Your task to perform on an android device: turn vacation reply on in the gmail app Image 0: 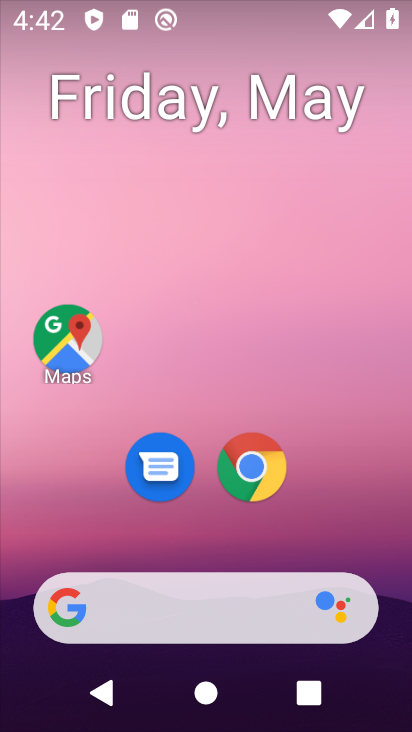
Step 0: drag from (268, 689) to (254, 393)
Your task to perform on an android device: turn vacation reply on in the gmail app Image 1: 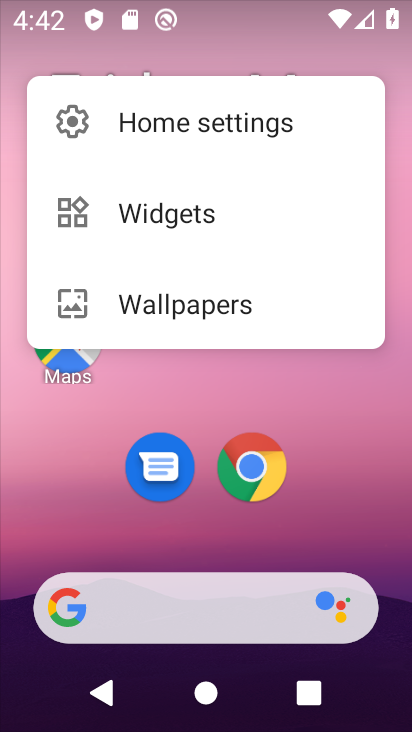
Step 1: drag from (316, 524) to (310, 88)
Your task to perform on an android device: turn vacation reply on in the gmail app Image 2: 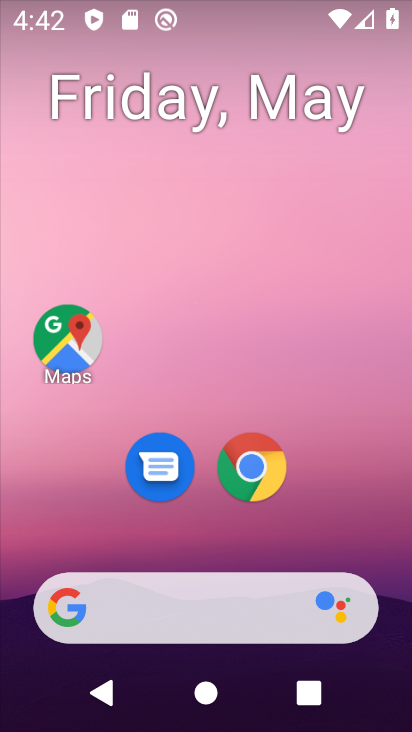
Step 2: drag from (247, 527) to (266, 59)
Your task to perform on an android device: turn vacation reply on in the gmail app Image 3: 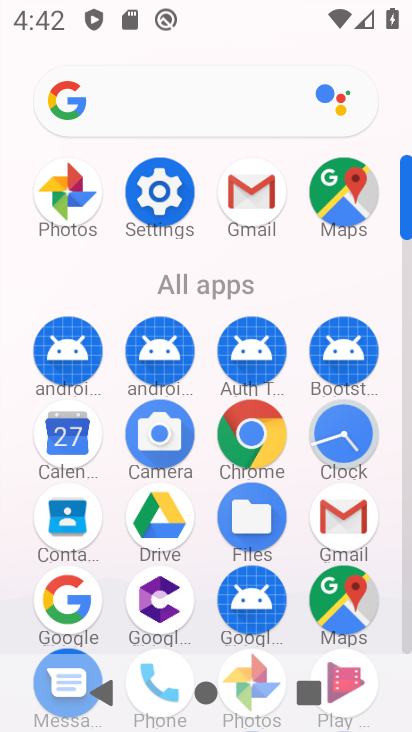
Step 3: click (257, 198)
Your task to perform on an android device: turn vacation reply on in the gmail app Image 4: 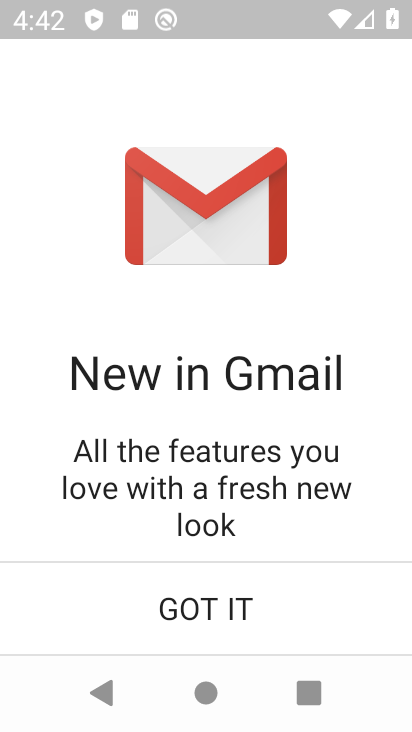
Step 4: click (206, 606)
Your task to perform on an android device: turn vacation reply on in the gmail app Image 5: 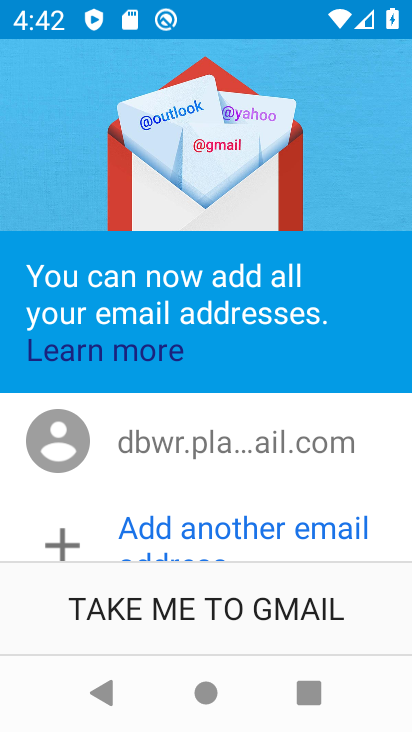
Step 5: click (226, 601)
Your task to perform on an android device: turn vacation reply on in the gmail app Image 6: 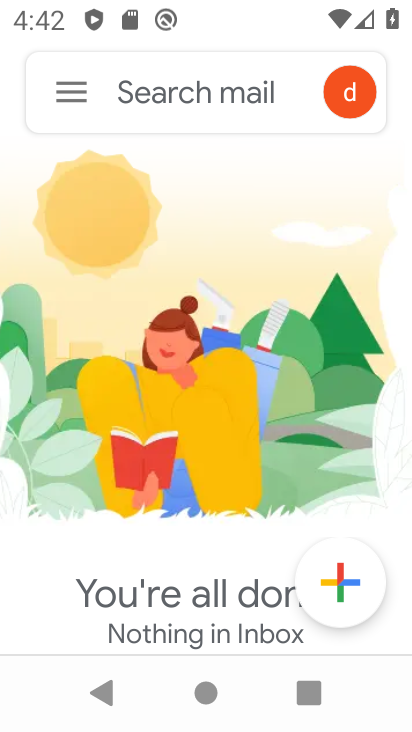
Step 6: click (71, 76)
Your task to perform on an android device: turn vacation reply on in the gmail app Image 7: 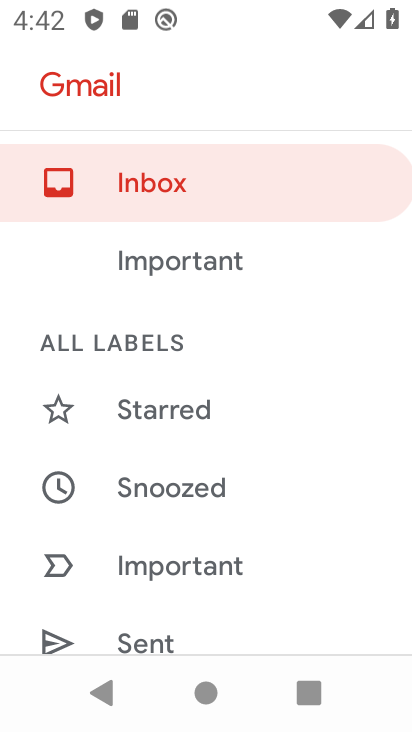
Step 7: drag from (178, 576) to (185, 146)
Your task to perform on an android device: turn vacation reply on in the gmail app Image 8: 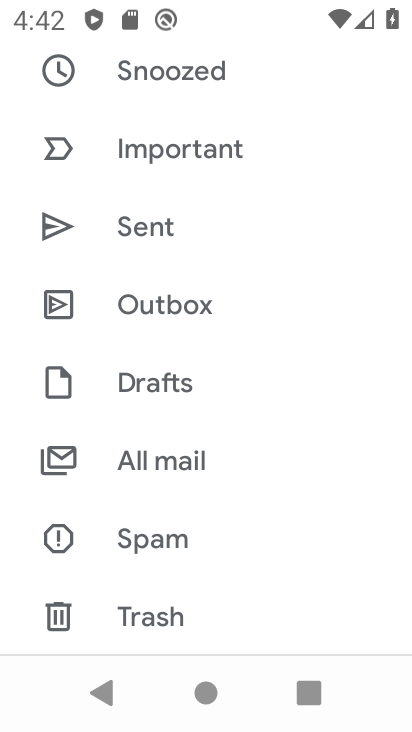
Step 8: drag from (182, 567) to (194, 358)
Your task to perform on an android device: turn vacation reply on in the gmail app Image 9: 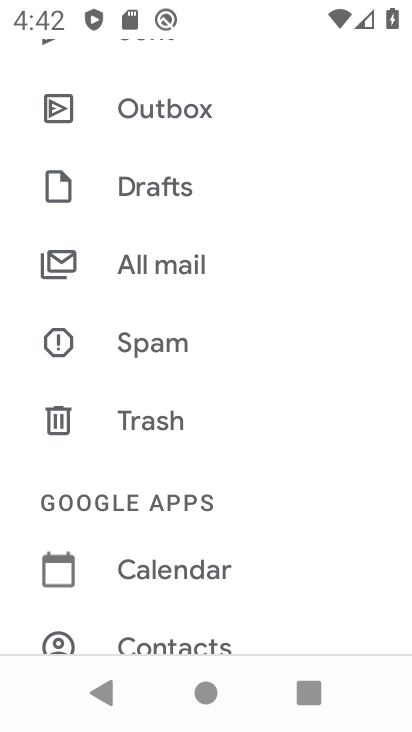
Step 9: drag from (224, 594) to (232, 250)
Your task to perform on an android device: turn vacation reply on in the gmail app Image 10: 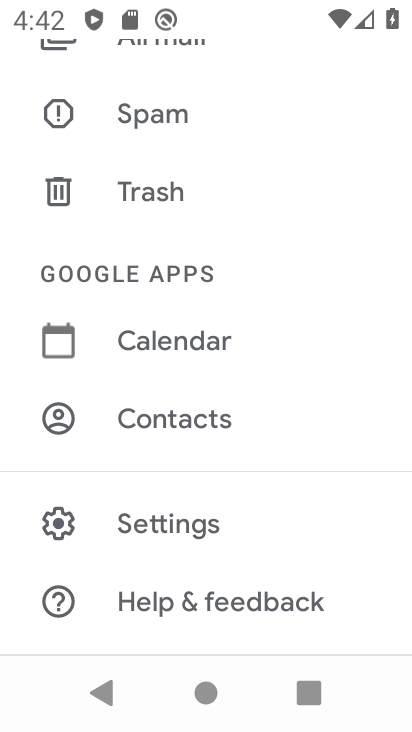
Step 10: click (165, 525)
Your task to perform on an android device: turn vacation reply on in the gmail app Image 11: 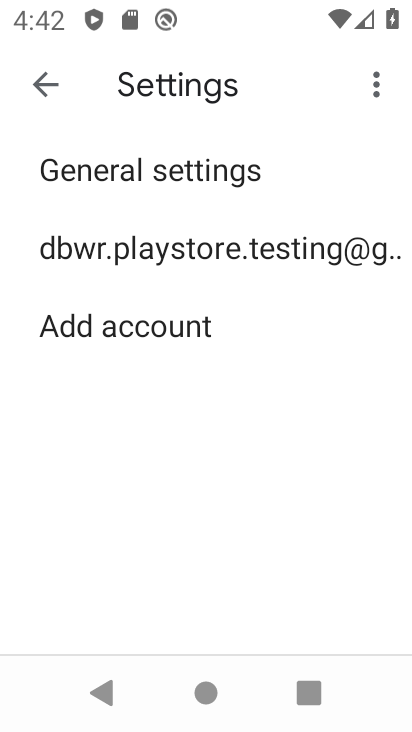
Step 11: click (208, 237)
Your task to perform on an android device: turn vacation reply on in the gmail app Image 12: 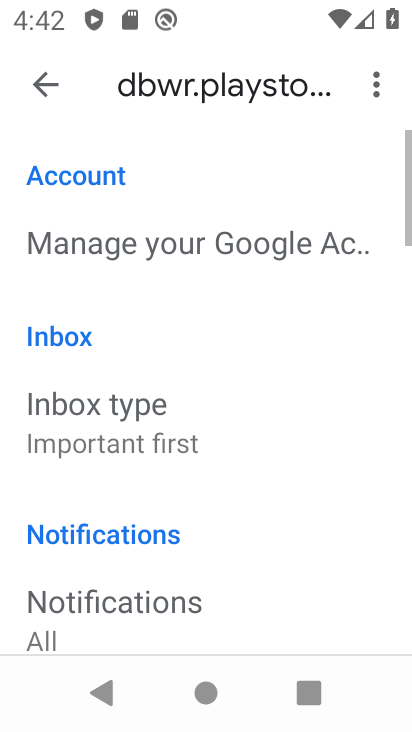
Step 12: drag from (294, 600) to (271, 303)
Your task to perform on an android device: turn vacation reply on in the gmail app Image 13: 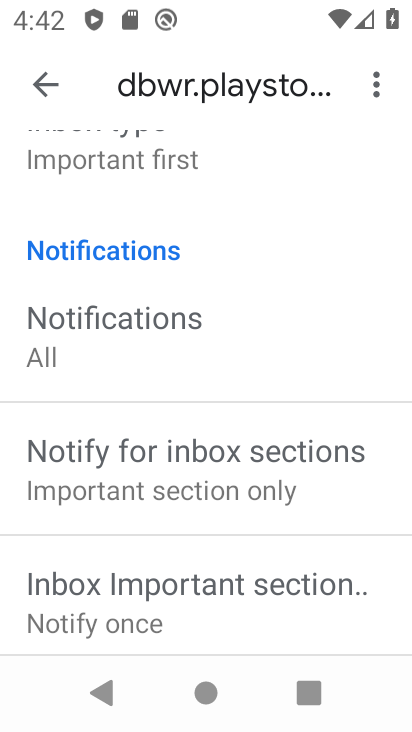
Step 13: drag from (254, 528) to (261, 341)
Your task to perform on an android device: turn vacation reply on in the gmail app Image 14: 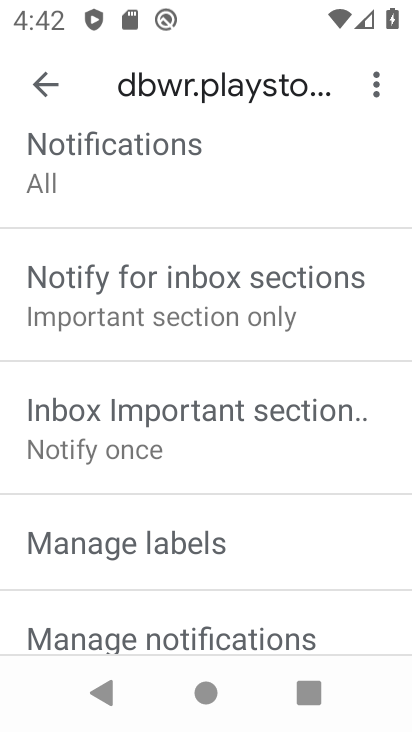
Step 14: drag from (268, 583) to (268, 353)
Your task to perform on an android device: turn vacation reply on in the gmail app Image 15: 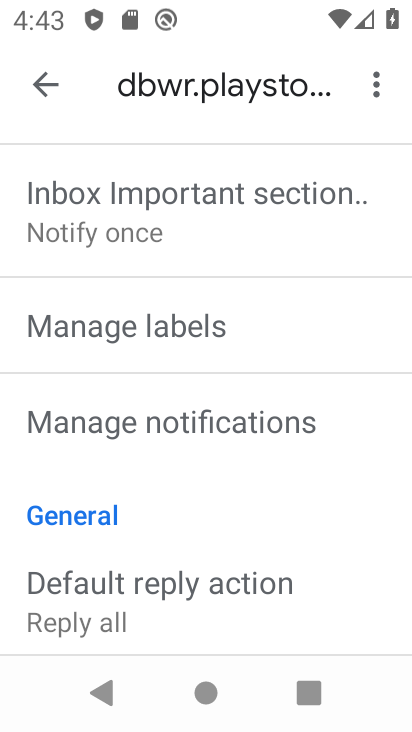
Step 15: drag from (274, 611) to (279, 137)
Your task to perform on an android device: turn vacation reply on in the gmail app Image 16: 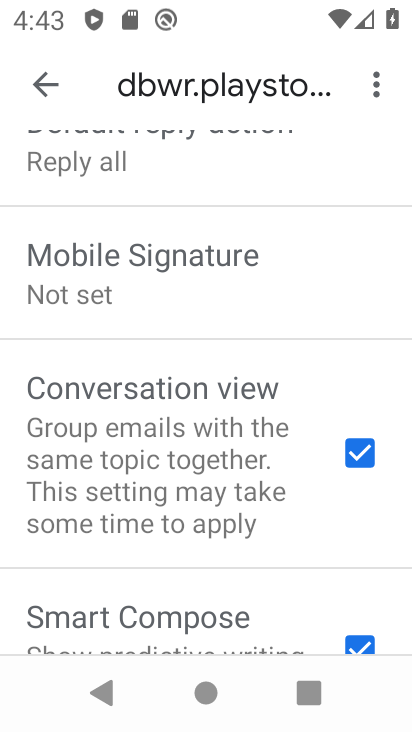
Step 16: drag from (293, 562) to (320, 219)
Your task to perform on an android device: turn vacation reply on in the gmail app Image 17: 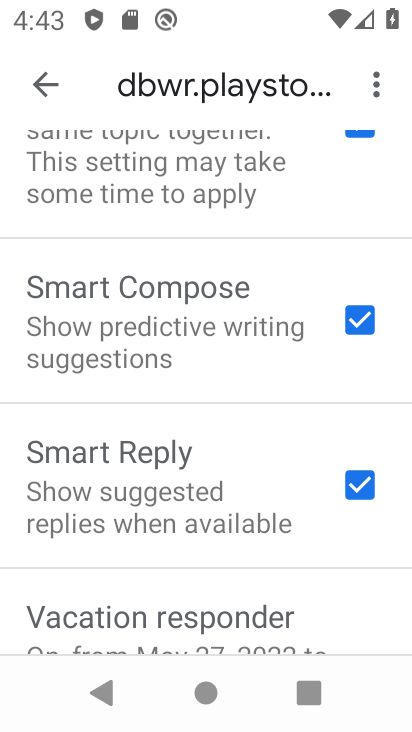
Step 17: drag from (222, 580) to (248, 317)
Your task to perform on an android device: turn vacation reply on in the gmail app Image 18: 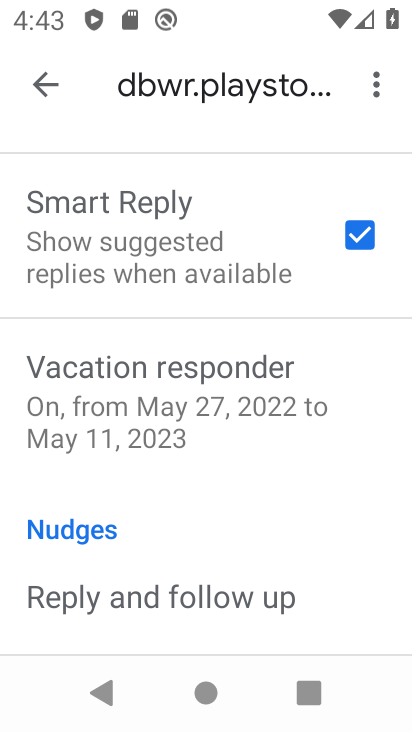
Step 18: click (256, 368)
Your task to perform on an android device: turn vacation reply on in the gmail app Image 19: 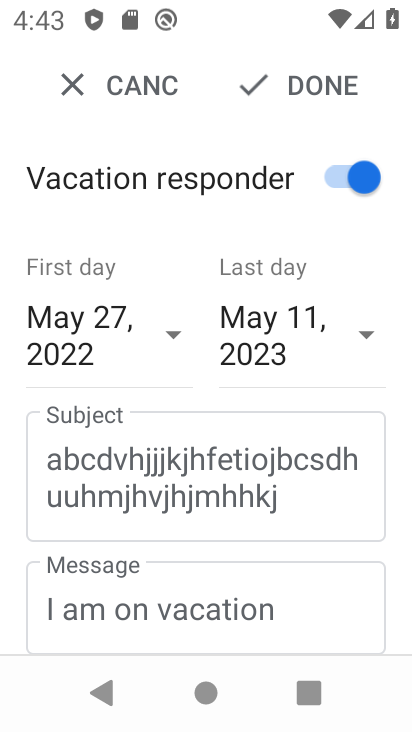
Step 19: click (310, 84)
Your task to perform on an android device: turn vacation reply on in the gmail app Image 20: 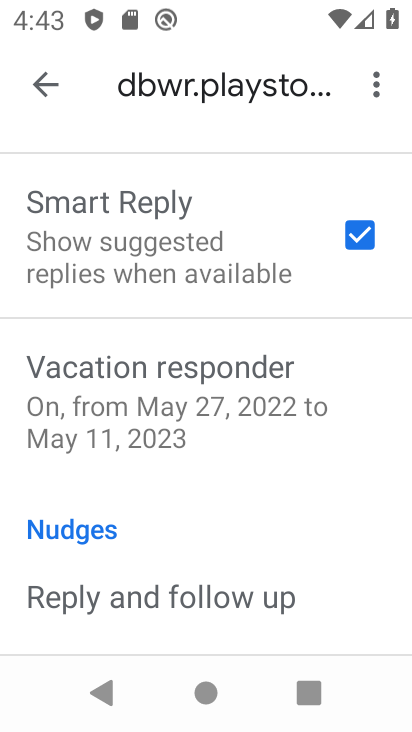
Step 20: task complete